Your task to perform on an android device: What's the weather going to be this weekend? Image 0: 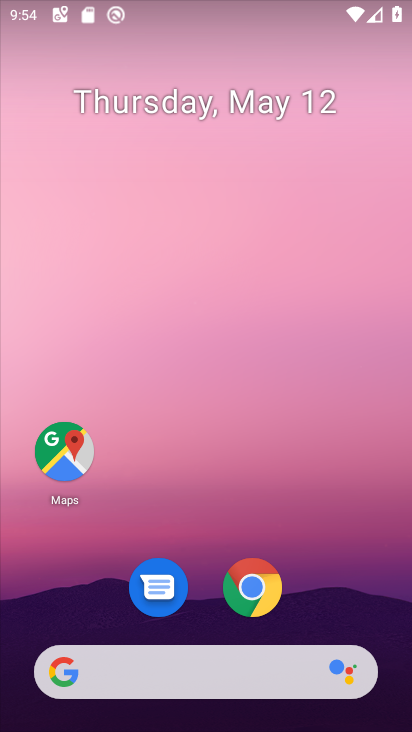
Step 0: click (219, 669)
Your task to perform on an android device: What's the weather going to be this weekend? Image 1: 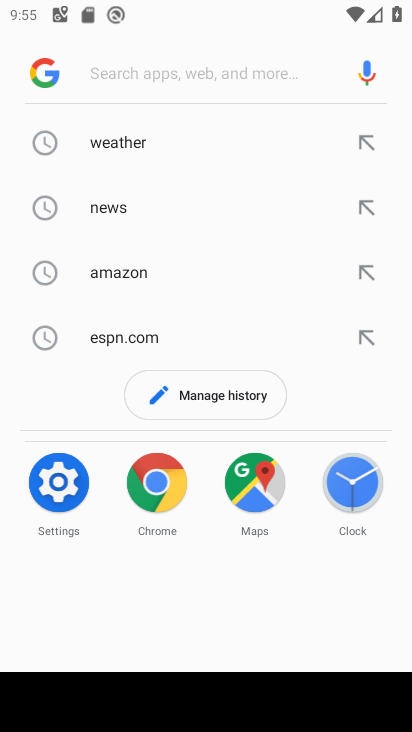
Step 1: click (359, 147)
Your task to perform on an android device: What's the weather going to be this weekend? Image 2: 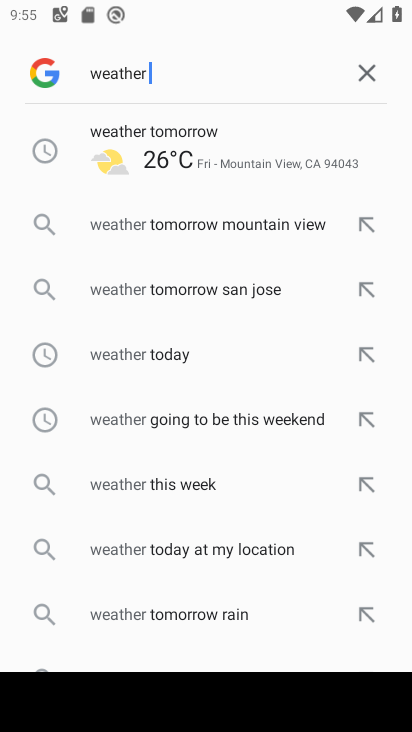
Step 2: click (268, 416)
Your task to perform on an android device: What's the weather going to be this weekend? Image 3: 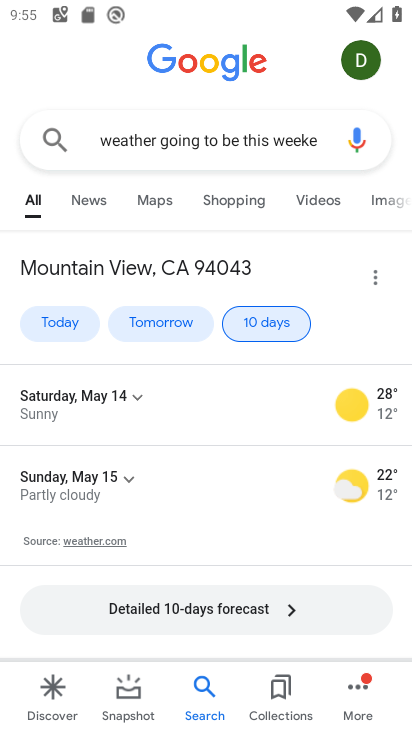
Step 3: task complete